Your task to perform on an android device: Open ESPN.com Image 0: 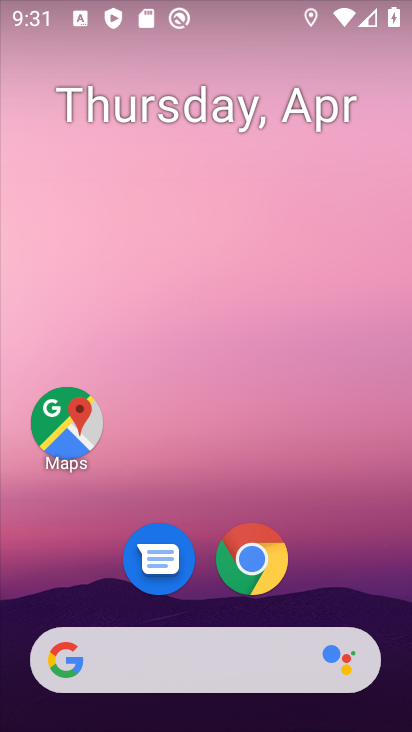
Step 0: click (248, 649)
Your task to perform on an android device: Open ESPN.com Image 1: 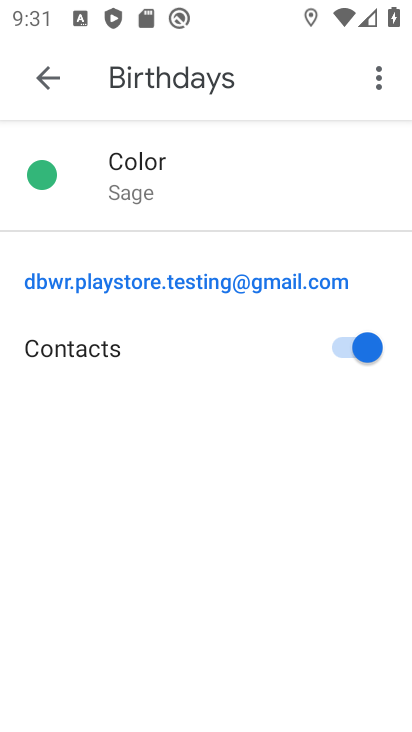
Step 1: press home button
Your task to perform on an android device: Open ESPN.com Image 2: 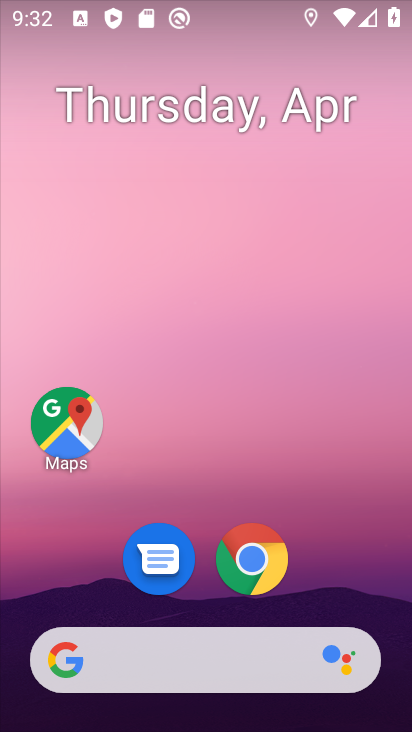
Step 2: click (203, 662)
Your task to perform on an android device: Open ESPN.com Image 3: 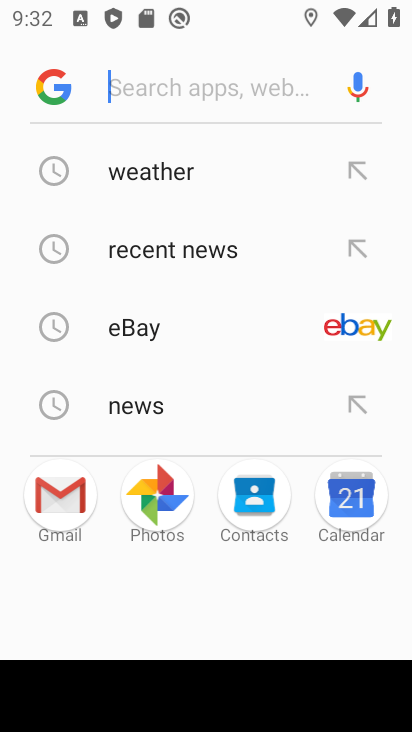
Step 3: type "espn.com"
Your task to perform on an android device: Open ESPN.com Image 4: 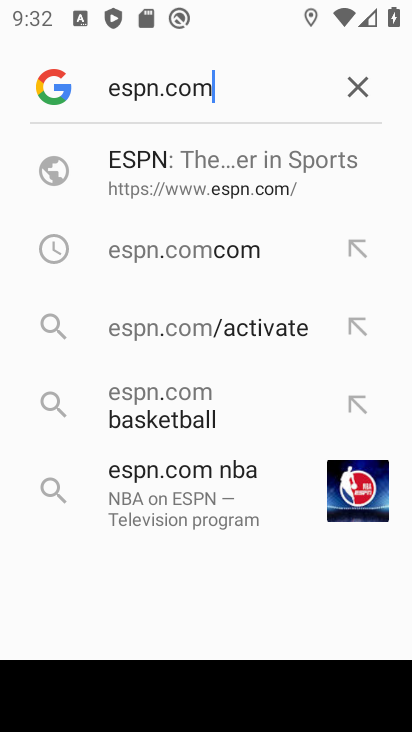
Step 4: click (175, 189)
Your task to perform on an android device: Open ESPN.com Image 5: 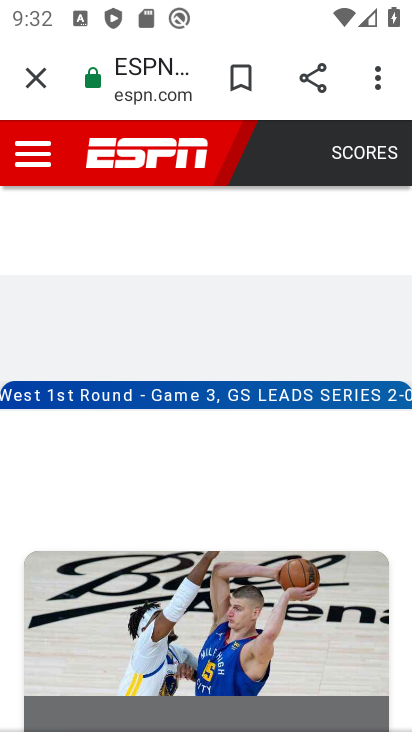
Step 5: task complete